Your task to perform on an android device: remove spam from my inbox in the gmail app Image 0: 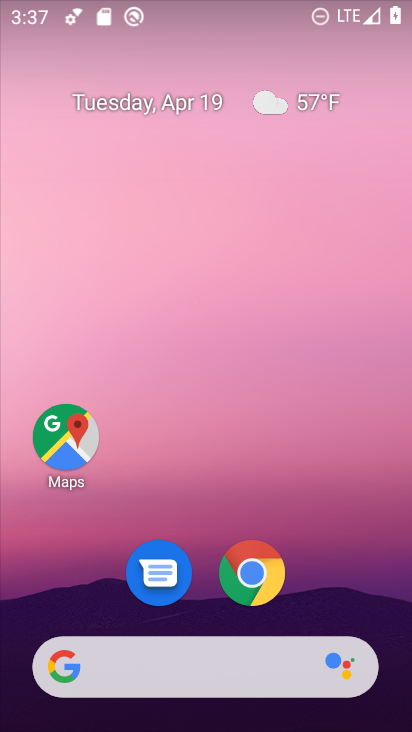
Step 0: drag from (351, 586) to (342, 45)
Your task to perform on an android device: remove spam from my inbox in the gmail app Image 1: 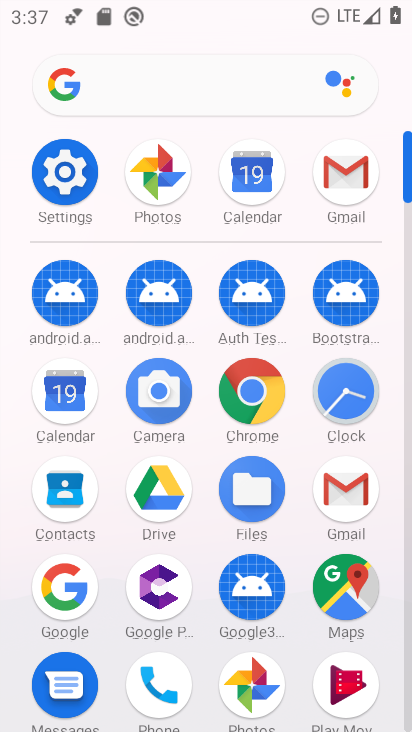
Step 1: click (350, 175)
Your task to perform on an android device: remove spam from my inbox in the gmail app Image 2: 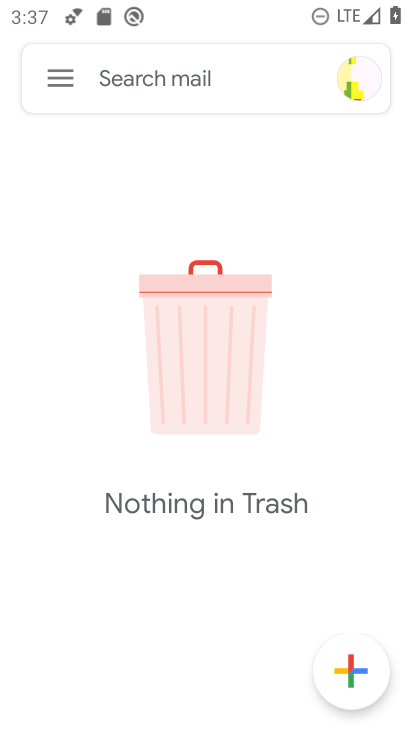
Step 2: click (67, 77)
Your task to perform on an android device: remove spam from my inbox in the gmail app Image 3: 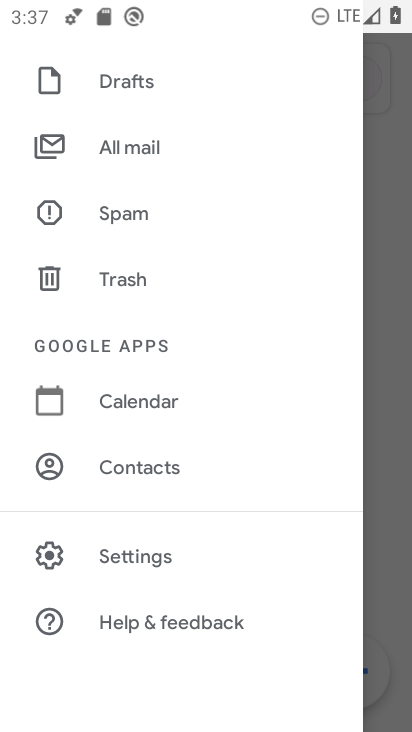
Step 3: click (115, 210)
Your task to perform on an android device: remove spam from my inbox in the gmail app Image 4: 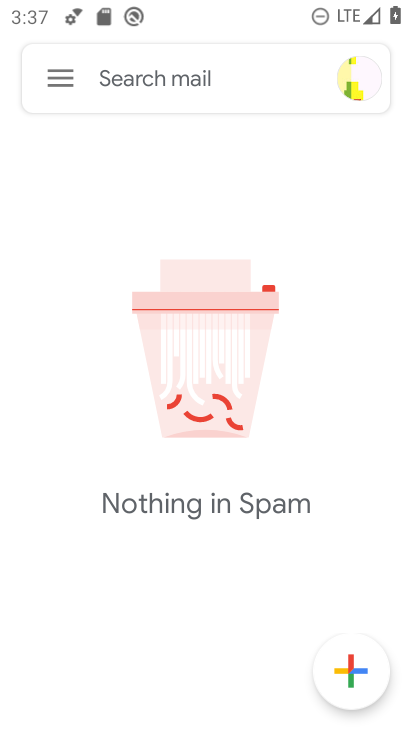
Step 4: task complete